Your task to perform on an android device: uninstall "PUBG MOBILE" Image 0: 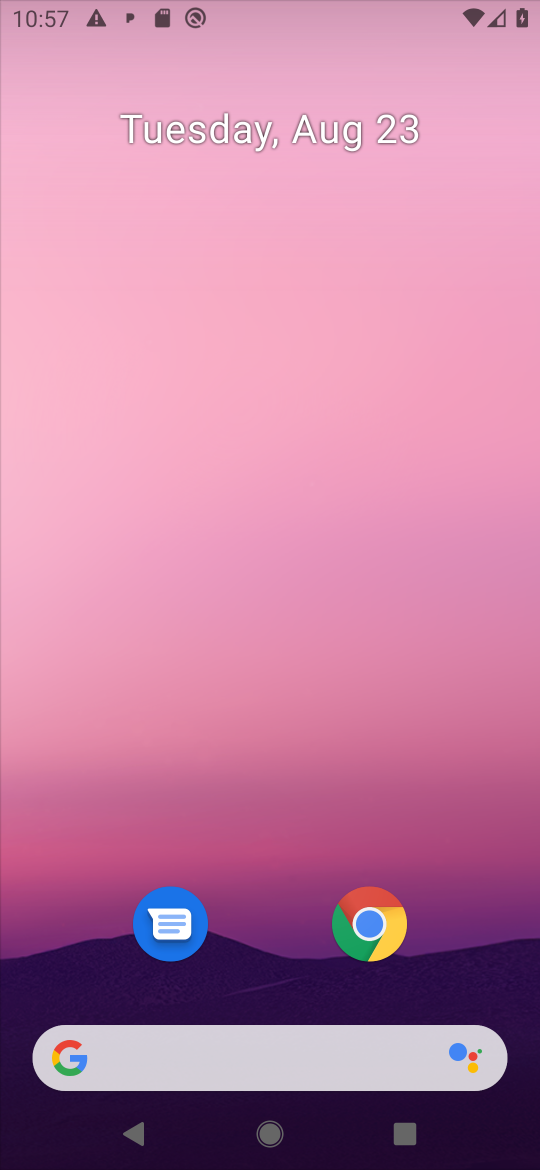
Step 0: press home button
Your task to perform on an android device: uninstall "PUBG MOBILE" Image 1: 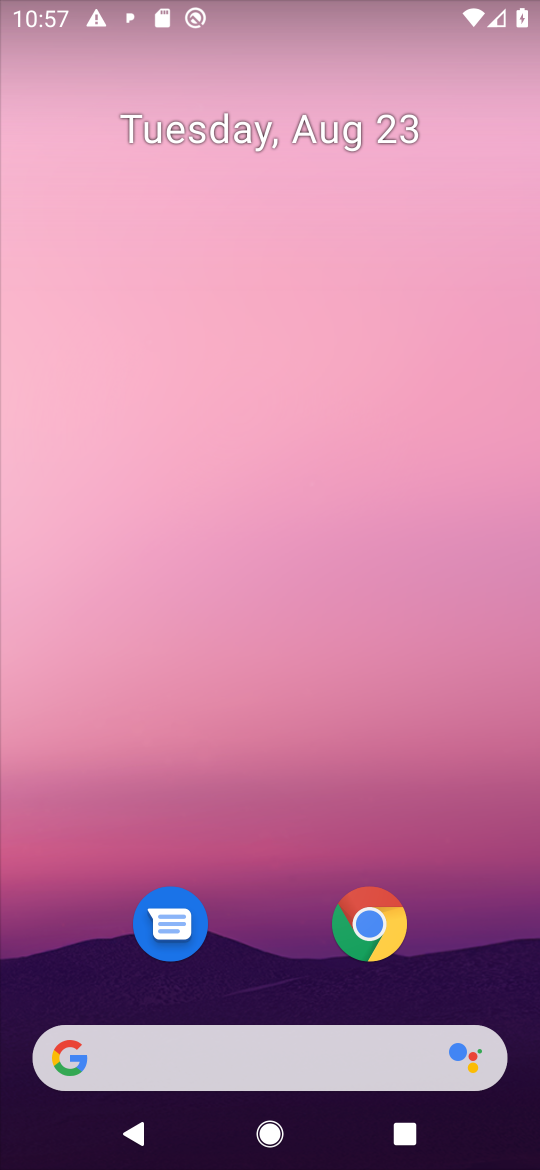
Step 1: drag from (485, 916) to (497, 99)
Your task to perform on an android device: uninstall "PUBG MOBILE" Image 2: 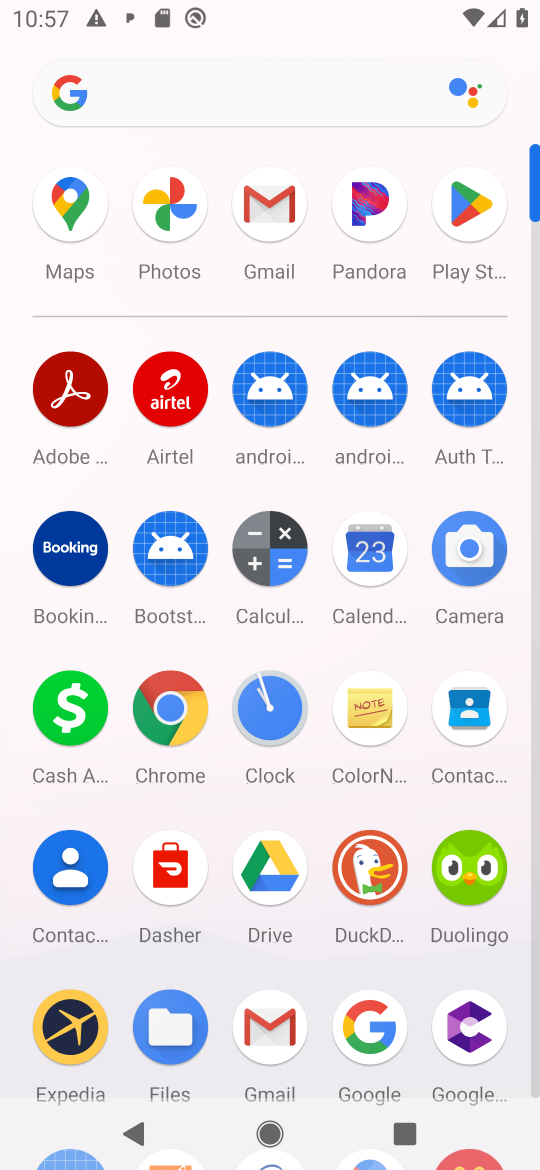
Step 2: click (465, 200)
Your task to perform on an android device: uninstall "PUBG MOBILE" Image 3: 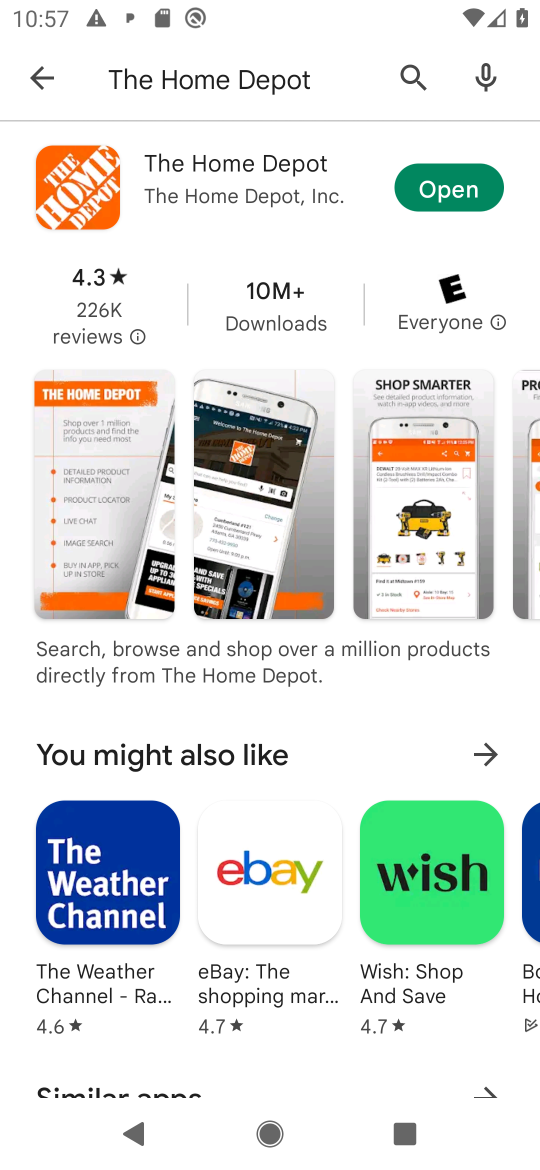
Step 3: press back button
Your task to perform on an android device: uninstall "PUBG MOBILE" Image 4: 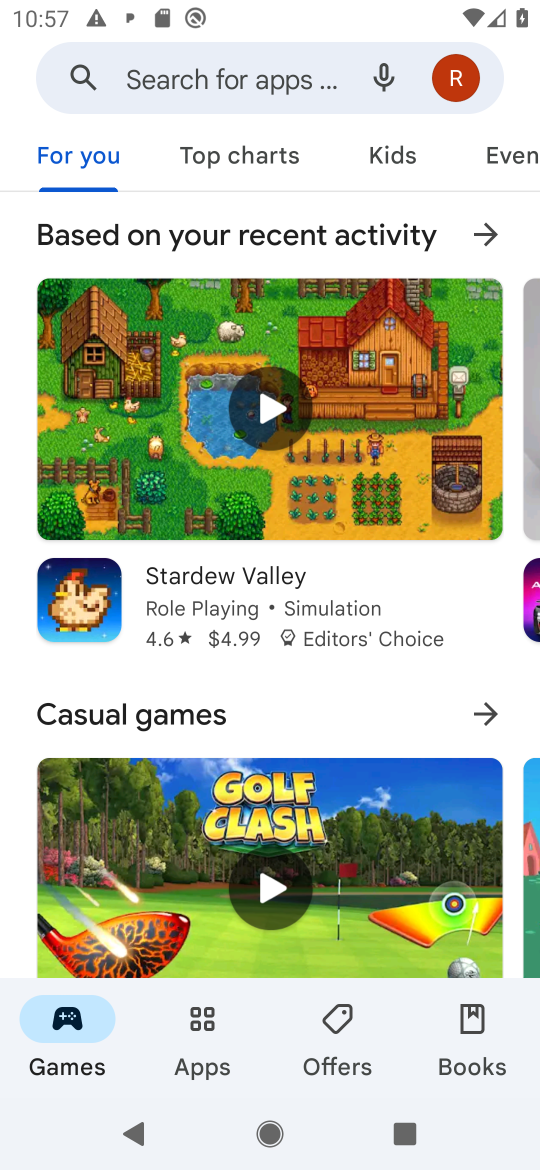
Step 4: click (260, 77)
Your task to perform on an android device: uninstall "PUBG MOBILE" Image 5: 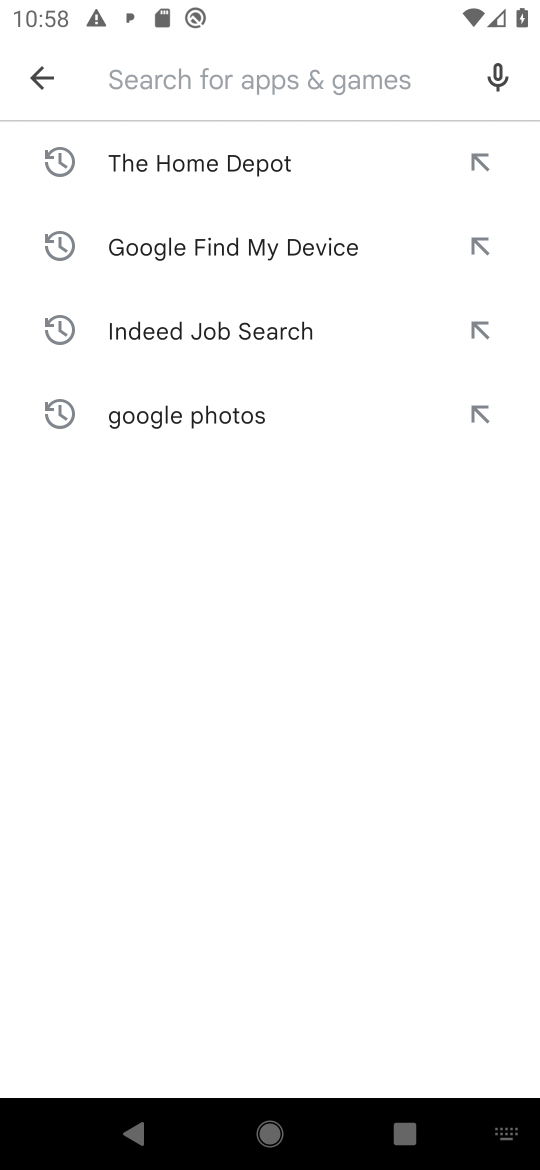
Step 5: type "PUBG MOBILE"
Your task to perform on an android device: uninstall "PUBG MOBILE" Image 6: 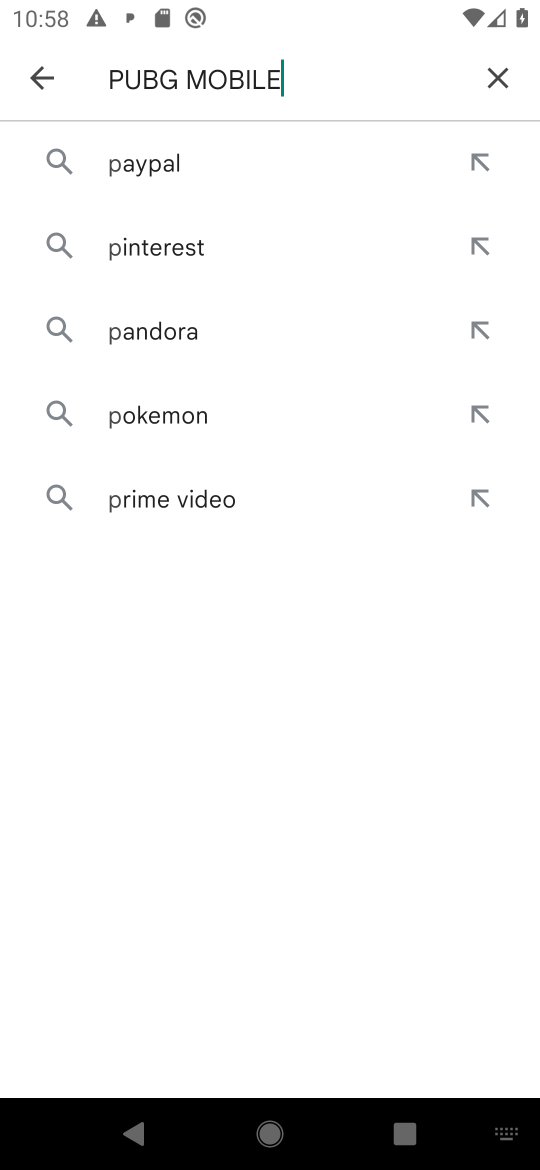
Step 6: press enter
Your task to perform on an android device: uninstall "PUBG MOBILE" Image 7: 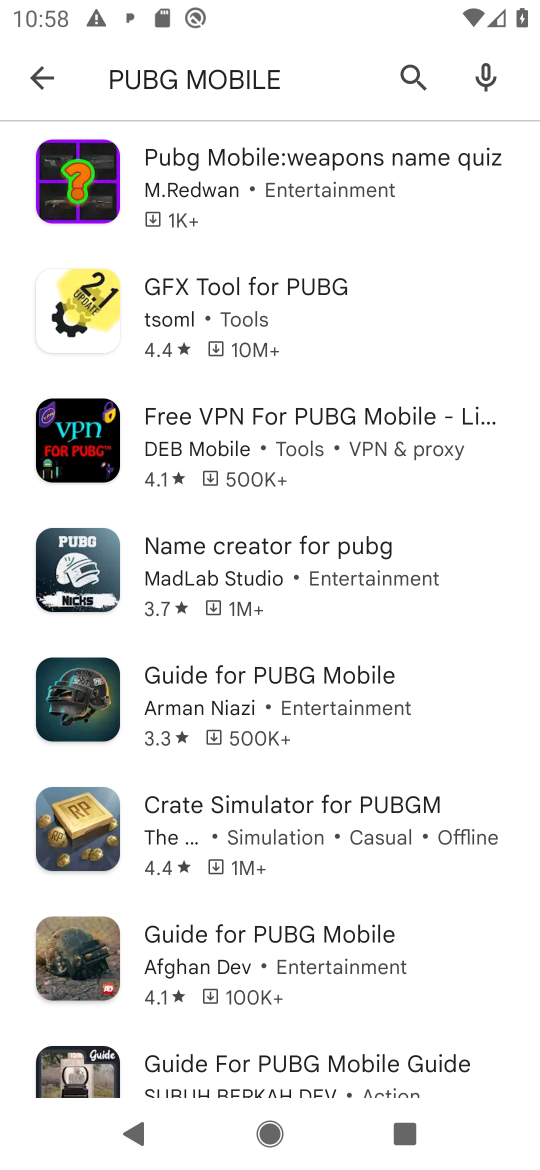
Step 7: task complete